Your task to perform on an android device: Go to Amazon Image 0: 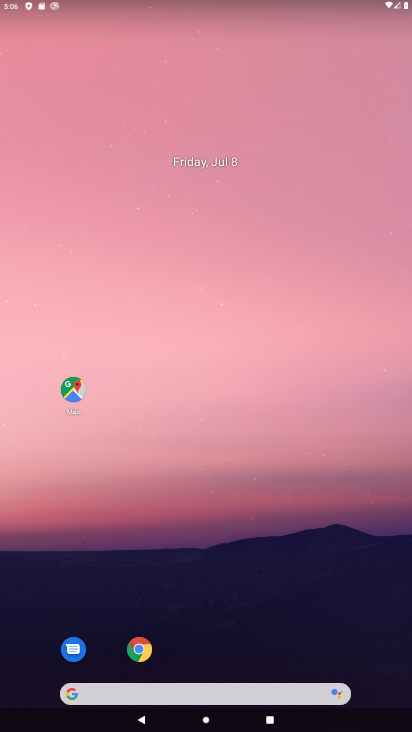
Step 0: drag from (330, 547) to (239, 5)
Your task to perform on an android device: Go to Amazon Image 1: 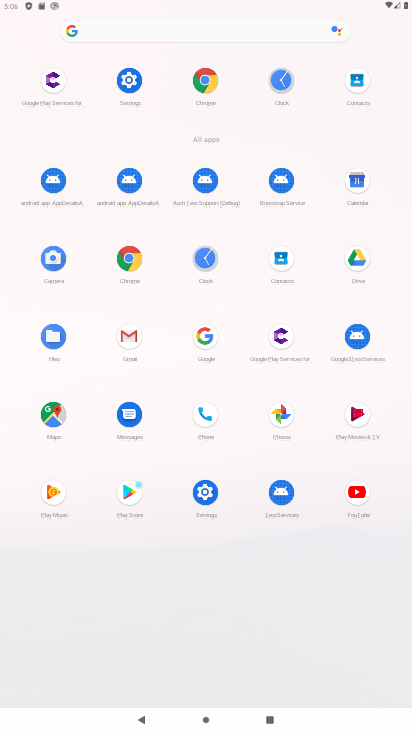
Step 1: click (204, 84)
Your task to perform on an android device: Go to Amazon Image 2: 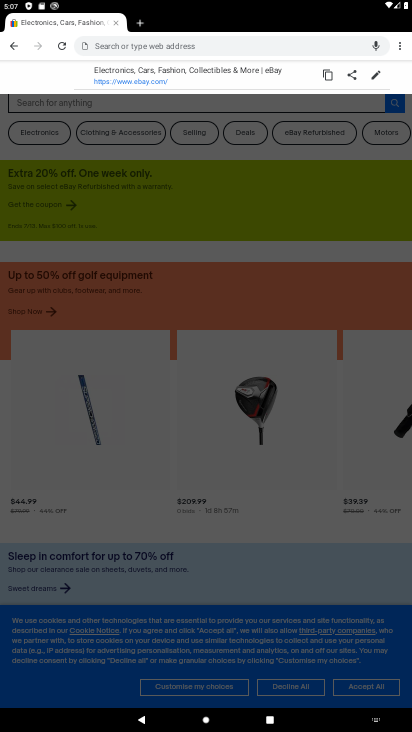
Step 2: type "amazon"
Your task to perform on an android device: Go to Amazon Image 3: 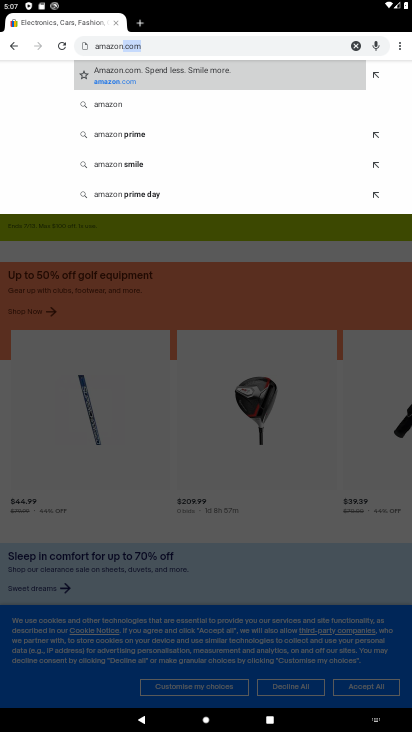
Step 3: click (130, 77)
Your task to perform on an android device: Go to Amazon Image 4: 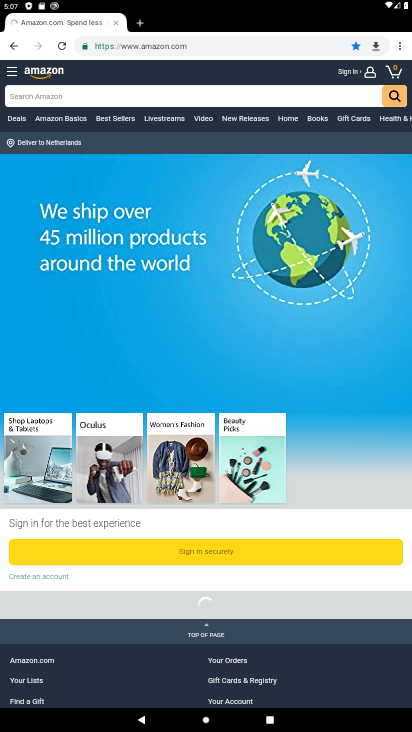
Step 4: task complete